Your task to perform on an android device: toggle pop-ups in chrome Image 0: 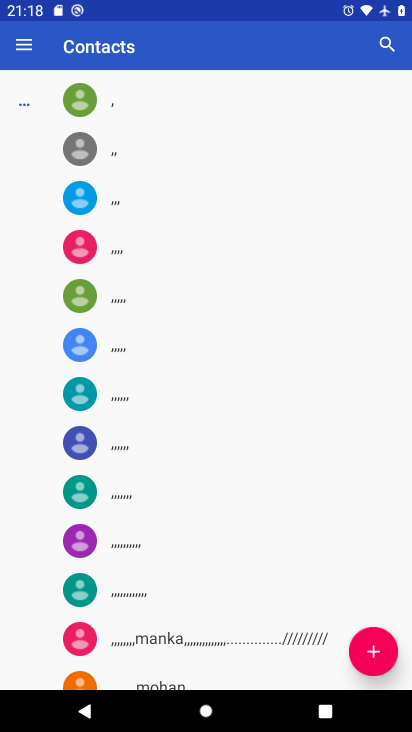
Step 0: press home button
Your task to perform on an android device: toggle pop-ups in chrome Image 1: 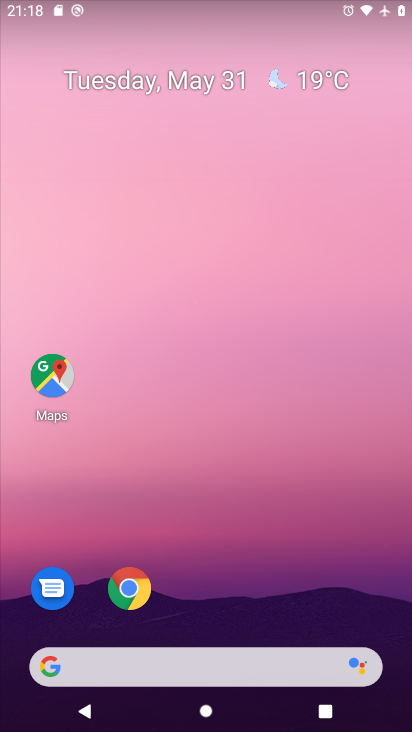
Step 1: click (133, 587)
Your task to perform on an android device: toggle pop-ups in chrome Image 2: 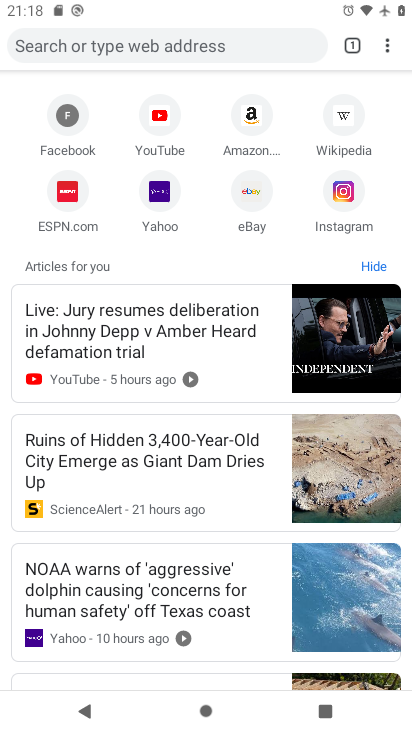
Step 2: drag from (387, 45) to (272, 374)
Your task to perform on an android device: toggle pop-ups in chrome Image 3: 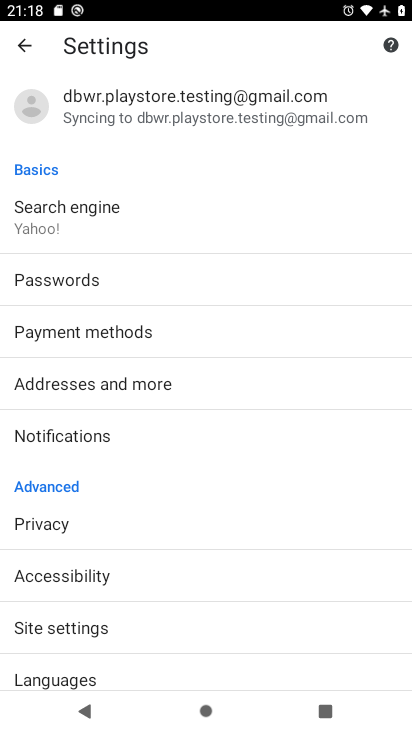
Step 3: click (106, 627)
Your task to perform on an android device: toggle pop-ups in chrome Image 4: 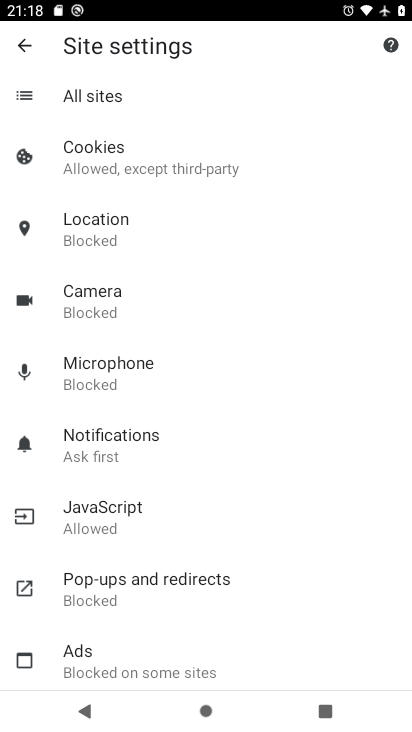
Step 4: click (119, 580)
Your task to perform on an android device: toggle pop-ups in chrome Image 5: 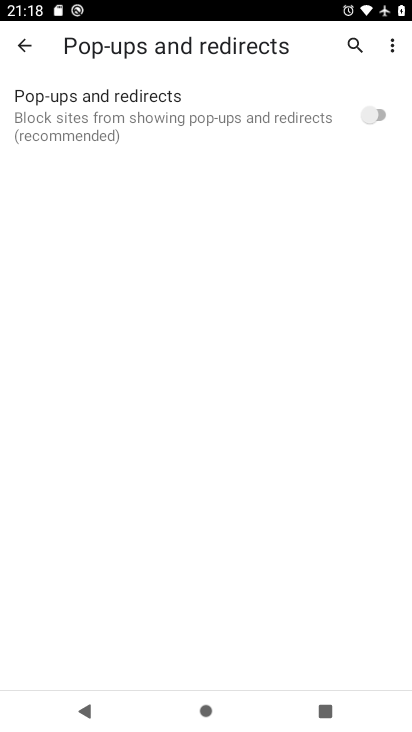
Step 5: click (381, 110)
Your task to perform on an android device: toggle pop-ups in chrome Image 6: 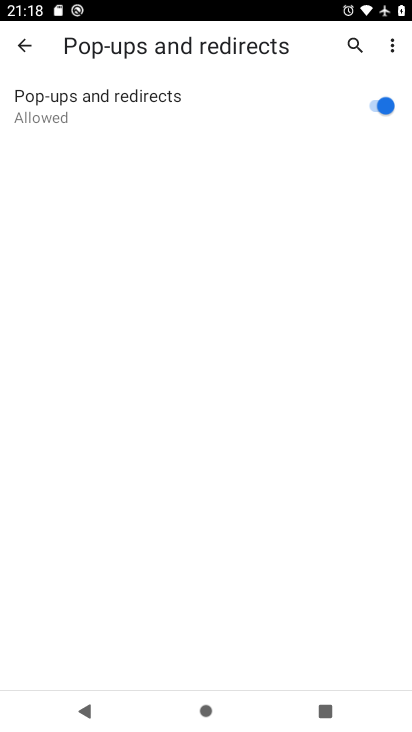
Step 6: task complete